Your task to perform on an android device: Open Chrome and go to the settings page Image 0: 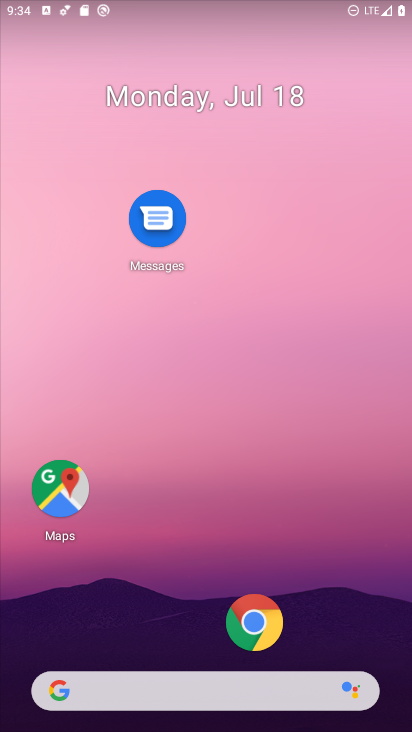
Step 0: drag from (215, 637) to (326, 24)
Your task to perform on an android device: Open Chrome and go to the settings page Image 1: 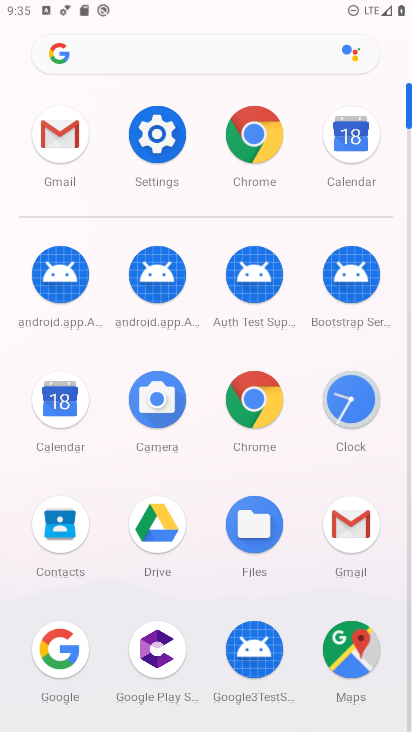
Step 1: drag from (205, 544) to (223, 277)
Your task to perform on an android device: Open Chrome and go to the settings page Image 2: 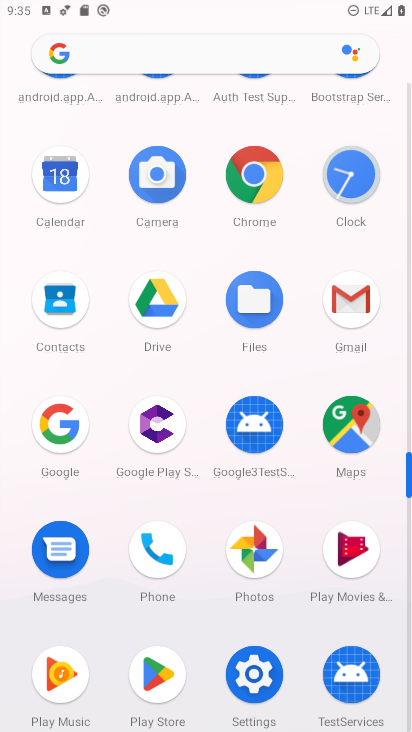
Step 2: click (252, 197)
Your task to perform on an android device: Open Chrome and go to the settings page Image 3: 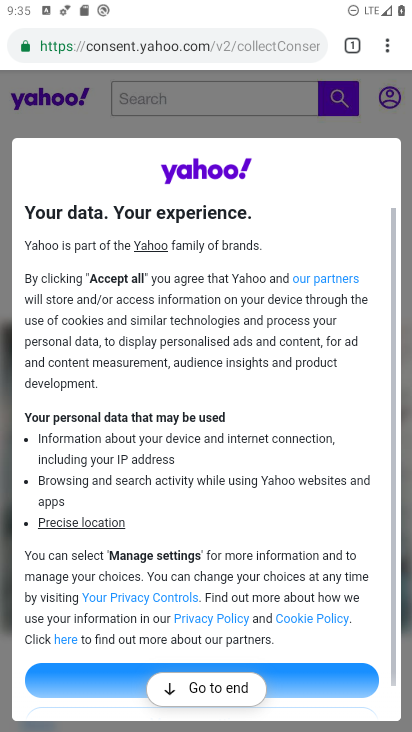
Step 3: click (389, 52)
Your task to perform on an android device: Open Chrome and go to the settings page Image 4: 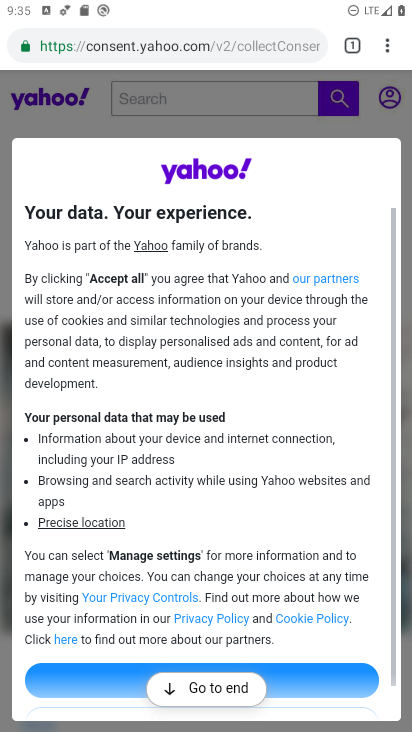
Step 4: click (381, 42)
Your task to perform on an android device: Open Chrome and go to the settings page Image 5: 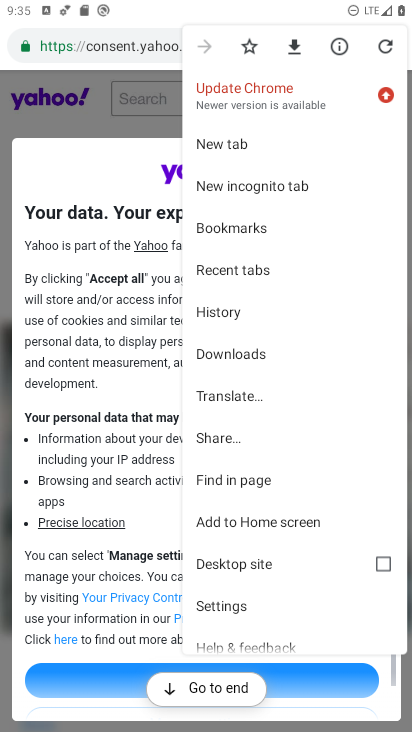
Step 5: drag from (277, 510) to (315, 183)
Your task to perform on an android device: Open Chrome and go to the settings page Image 6: 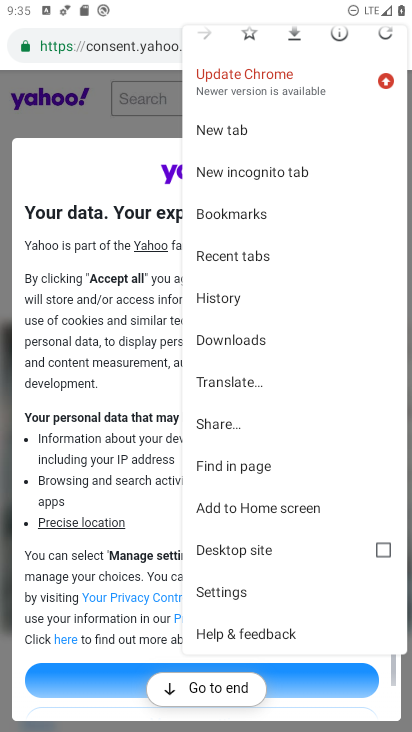
Step 6: drag from (305, 532) to (339, 238)
Your task to perform on an android device: Open Chrome and go to the settings page Image 7: 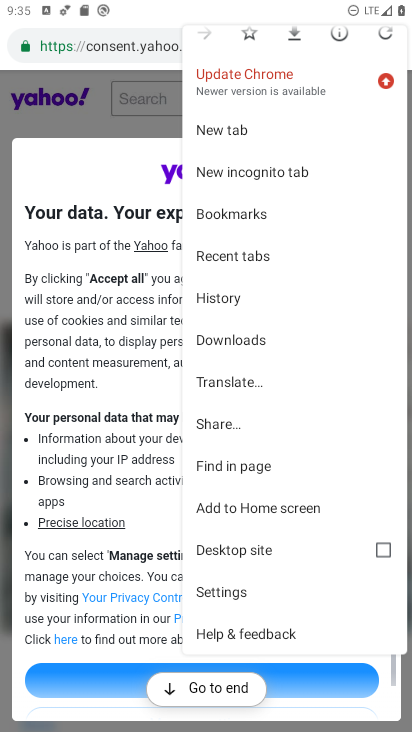
Step 7: click (222, 592)
Your task to perform on an android device: Open Chrome and go to the settings page Image 8: 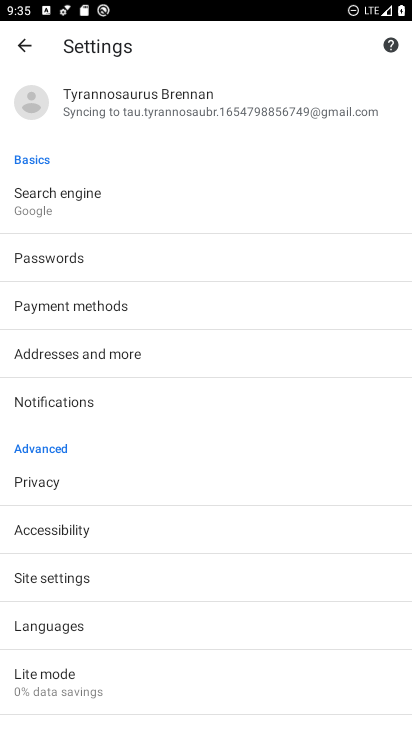
Step 8: task complete